Your task to perform on an android device: Go to location settings Image 0: 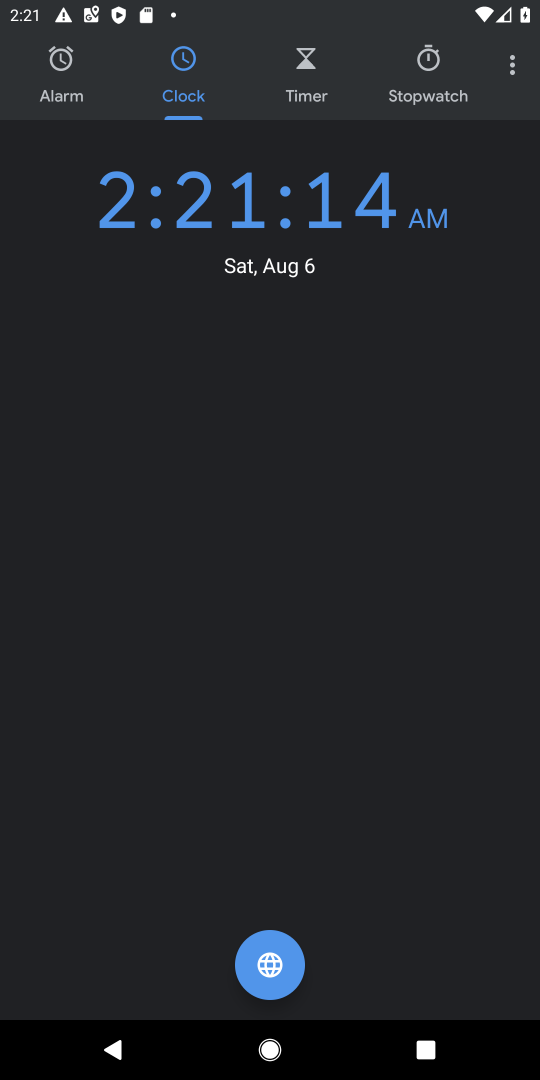
Step 0: press back button
Your task to perform on an android device: Go to location settings Image 1: 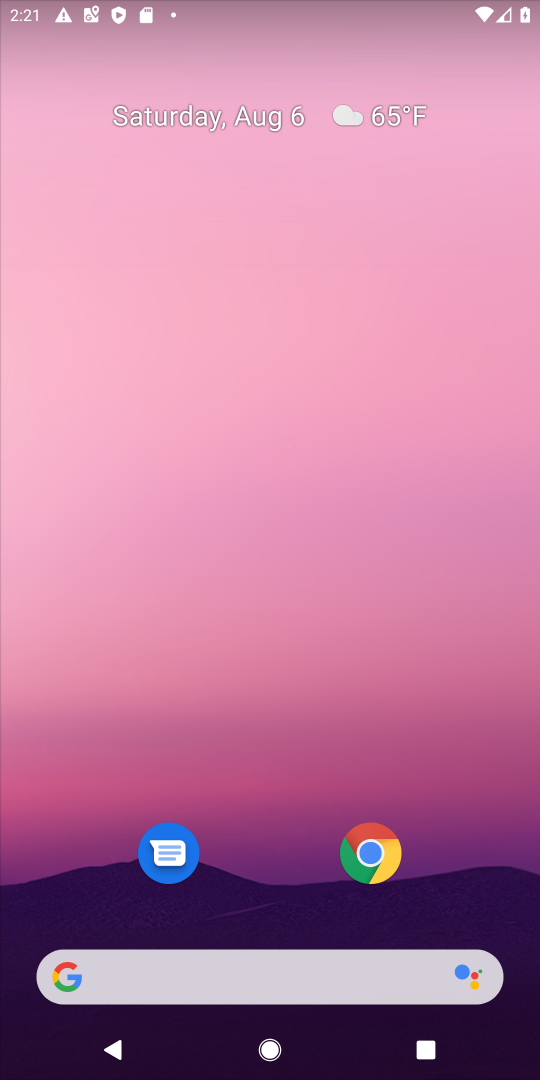
Step 1: drag from (221, 911) to (260, 100)
Your task to perform on an android device: Go to location settings Image 2: 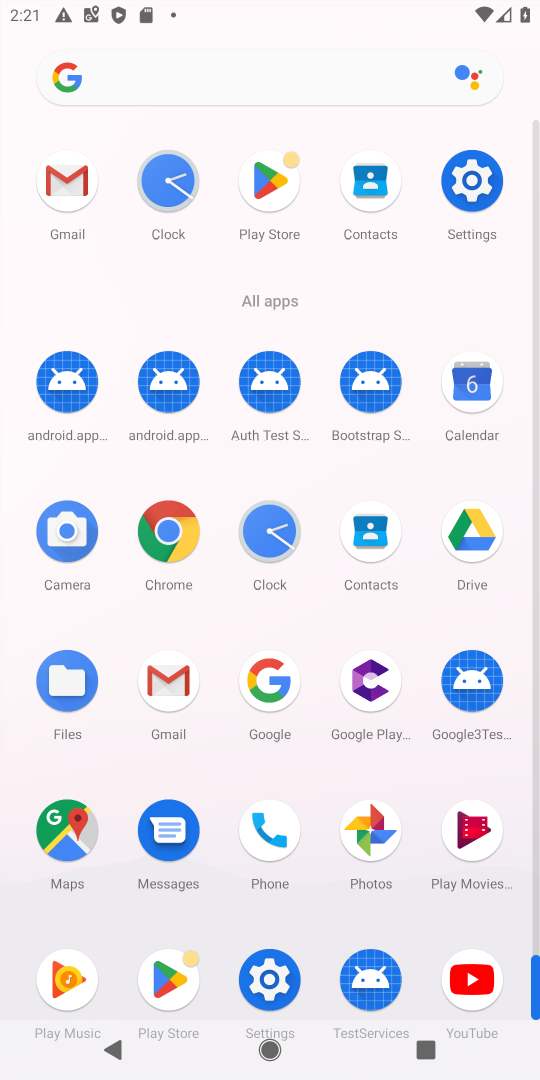
Step 2: click (468, 189)
Your task to perform on an android device: Go to location settings Image 3: 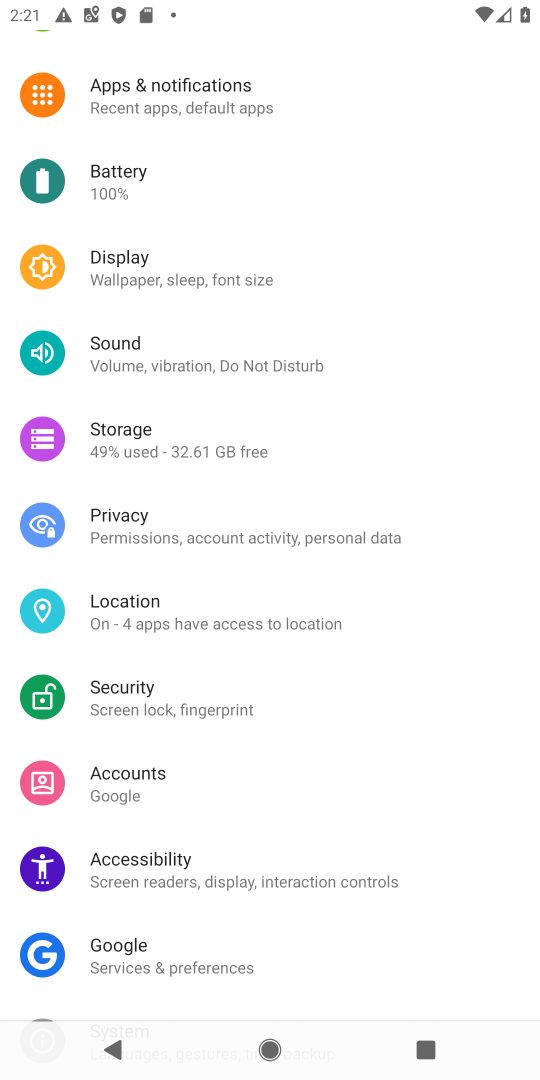
Step 3: click (214, 617)
Your task to perform on an android device: Go to location settings Image 4: 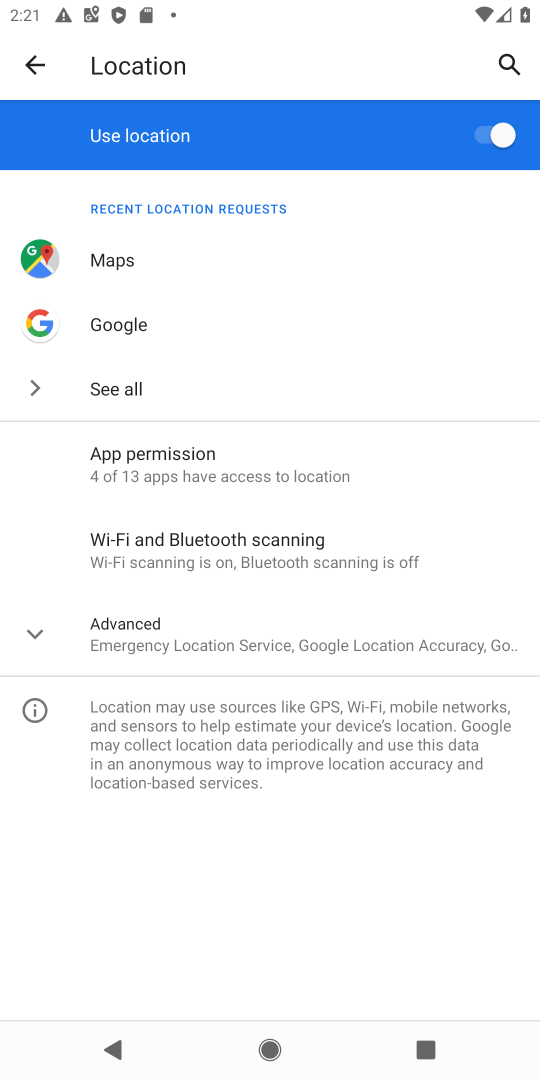
Step 4: task complete